Your task to perform on an android device: open a new tab in the chrome app Image 0: 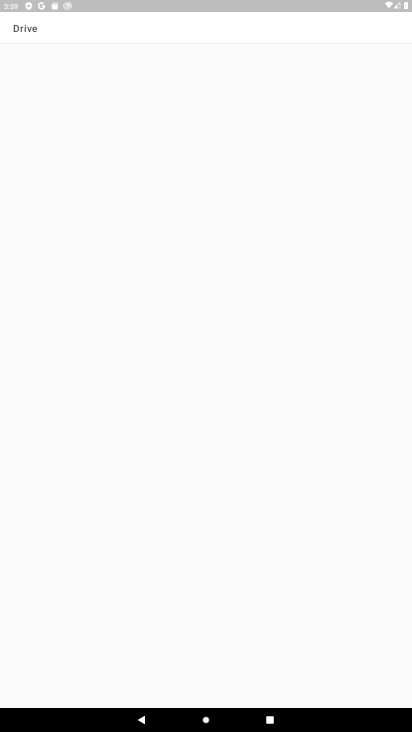
Step 0: press home button
Your task to perform on an android device: open a new tab in the chrome app Image 1: 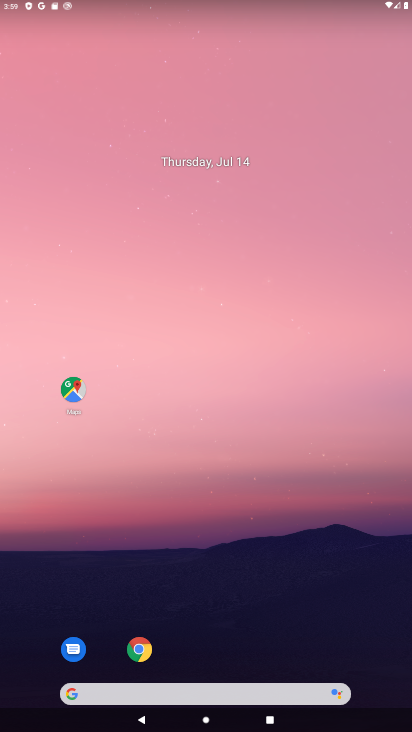
Step 1: click (141, 647)
Your task to perform on an android device: open a new tab in the chrome app Image 2: 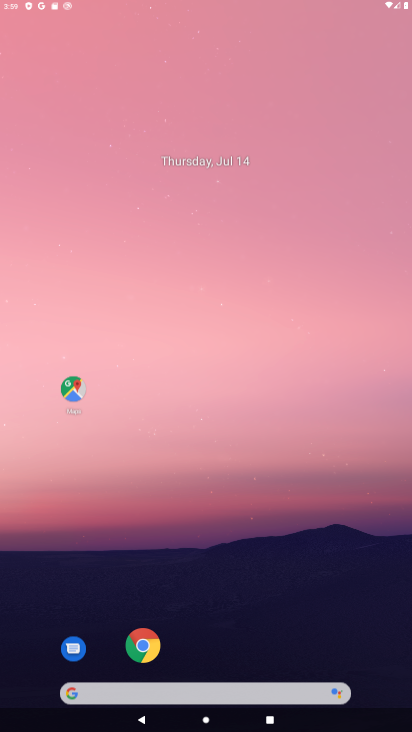
Step 2: click (151, 644)
Your task to perform on an android device: open a new tab in the chrome app Image 3: 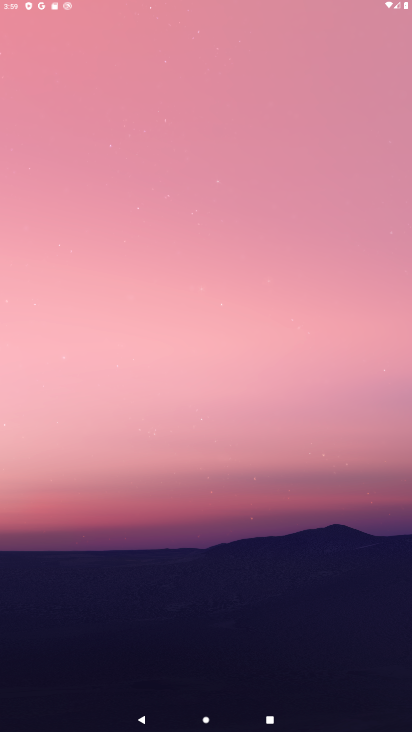
Step 3: click (151, 644)
Your task to perform on an android device: open a new tab in the chrome app Image 4: 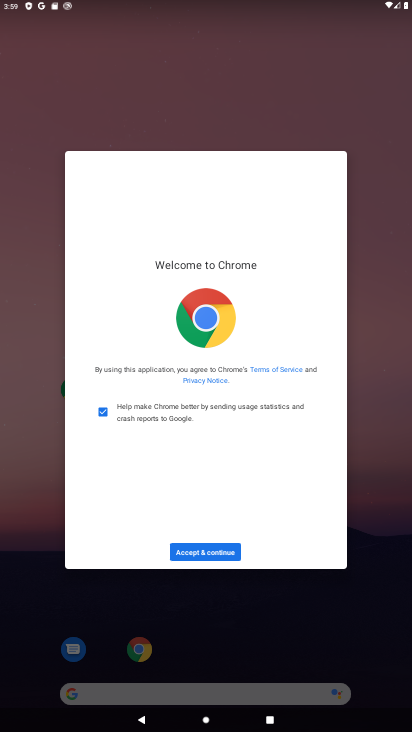
Step 4: click (221, 556)
Your task to perform on an android device: open a new tab in the chrome app Image 5: 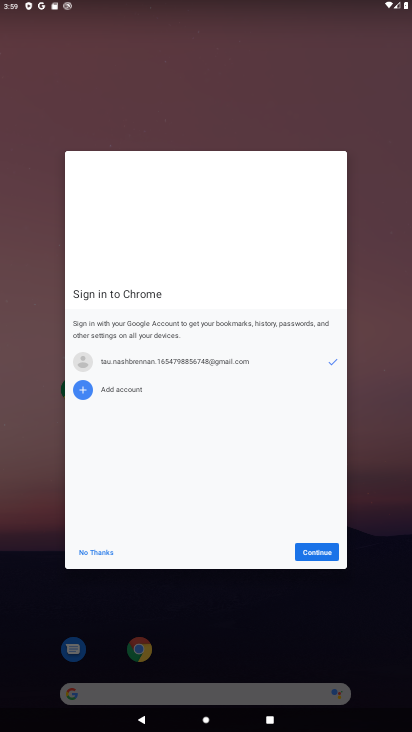
Step 5: click (217, 554)
Your task to perform on an android device: open a new tab in the chrome app Image 6: 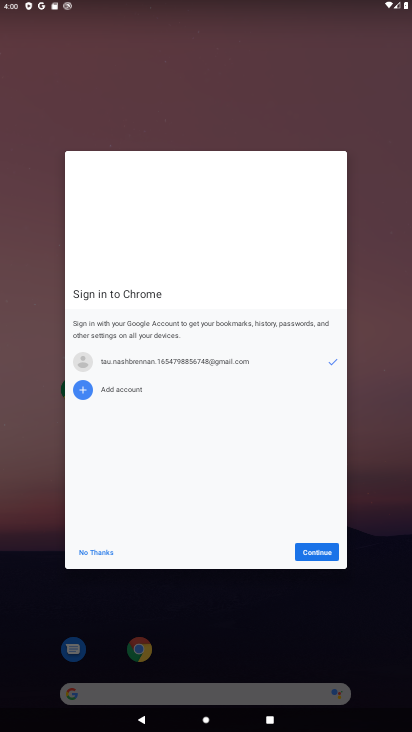
Step 6: click (327, 556)
Your task to perform on an android device: open a new tab in the chrome app Image 7: 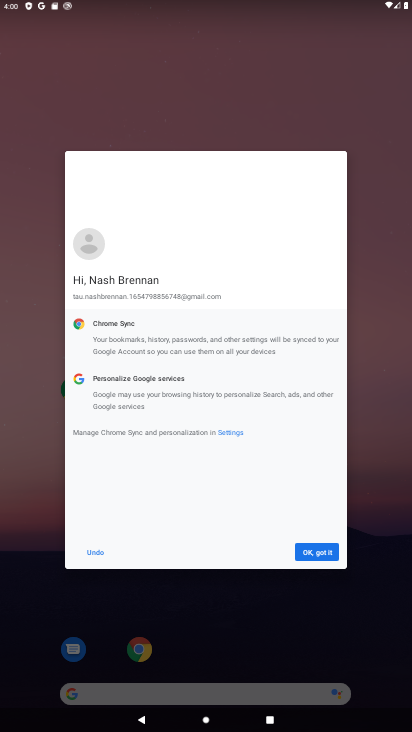
Step 7: click (336, 556)
Your task to perform on an android device: open a new tab in the chrome app Image 8: 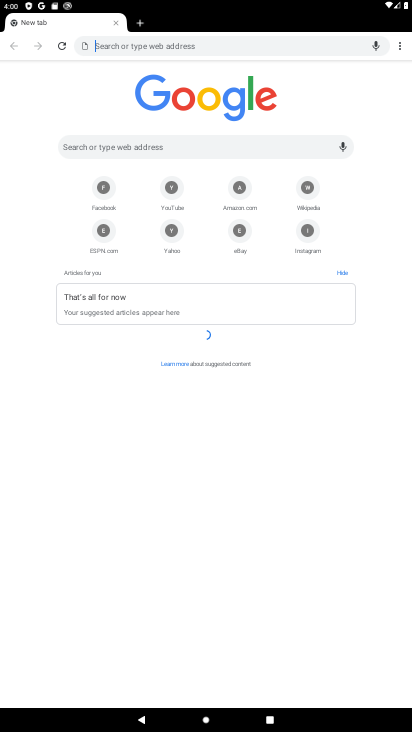
Step 8: click (395, 38)
Your task to perform on an android device: open a new tab in the chrome app Image 9: 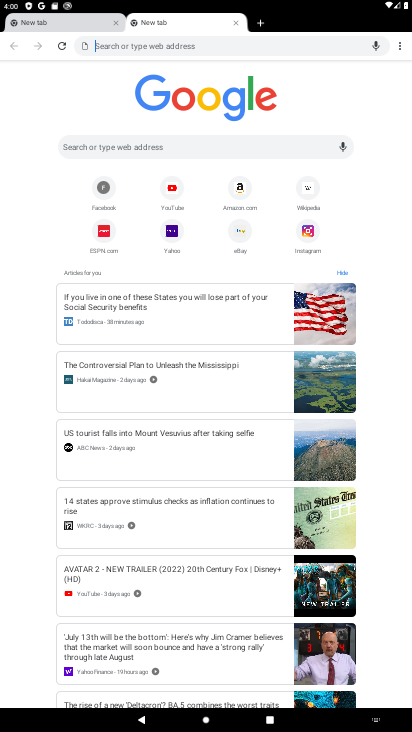
Step 9: task complete